Your task to perform on an android device: toggle wifi Image 0: 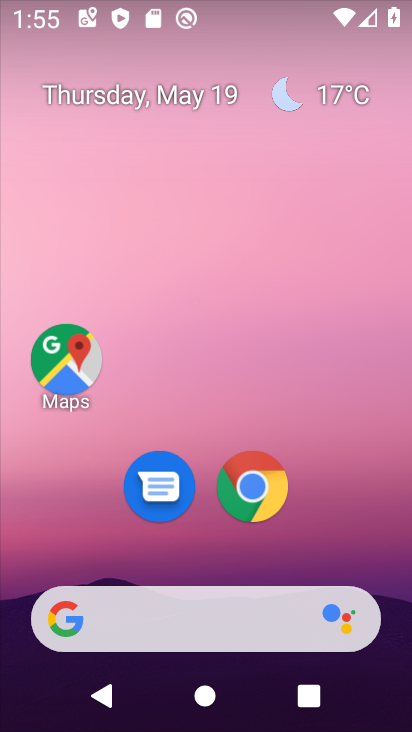
Step 0: drag from (327, 525) to (199, 10)
Your task to perform on an android device: toggle wifi Image 1: 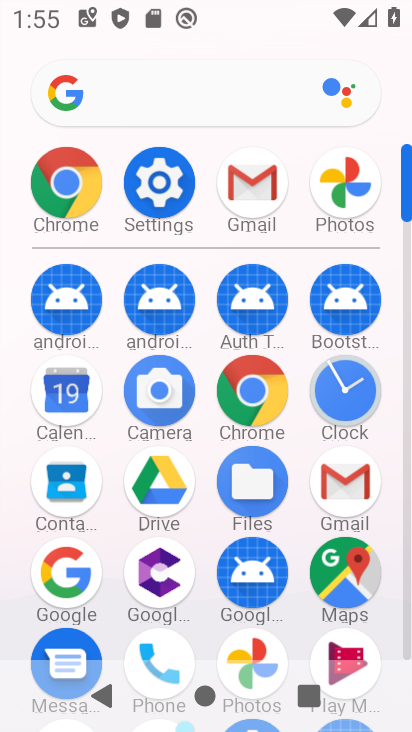
Step 1: click (175, 193)
Your task to perform on an android device: toggle wifi Image 2: 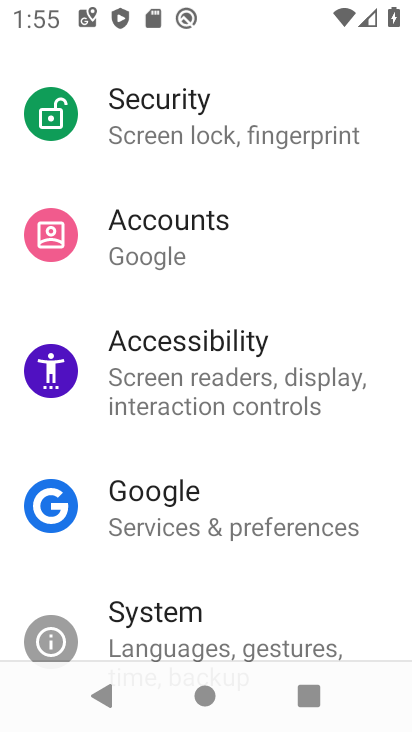
Step 2: drag from (285, 194) to (216, 573)
Your task to perform on an android device: toggle wifi Image 3: 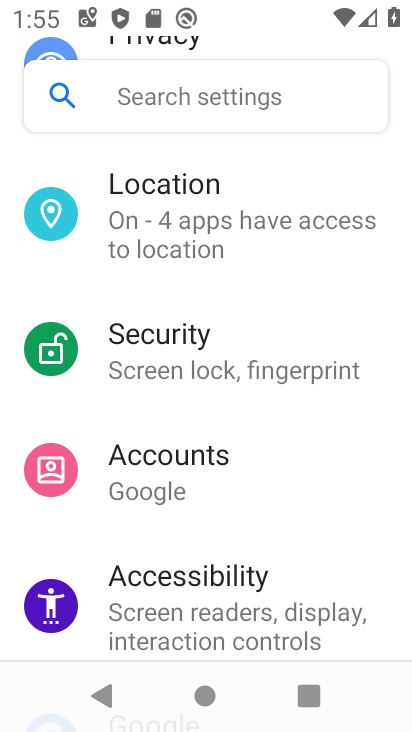
Step 3: drag from (251, 180) to (178, 566)
Your task to perform on an android device: toggle wifi Image 4: 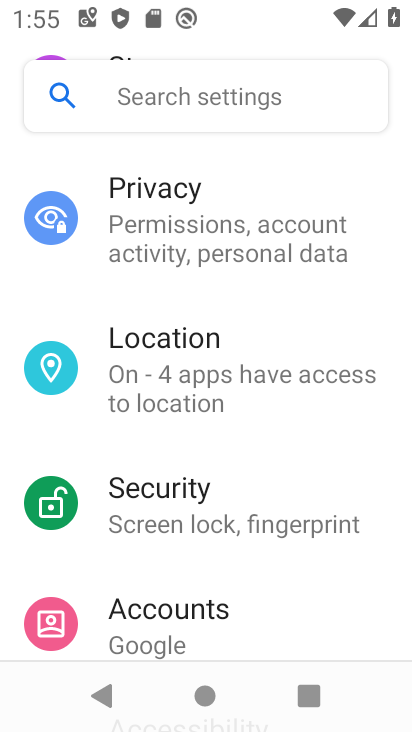
Step 4: drag from (225, 247) to (217, 567)
Your task to perform on an android device: toggle wifi Image 5: 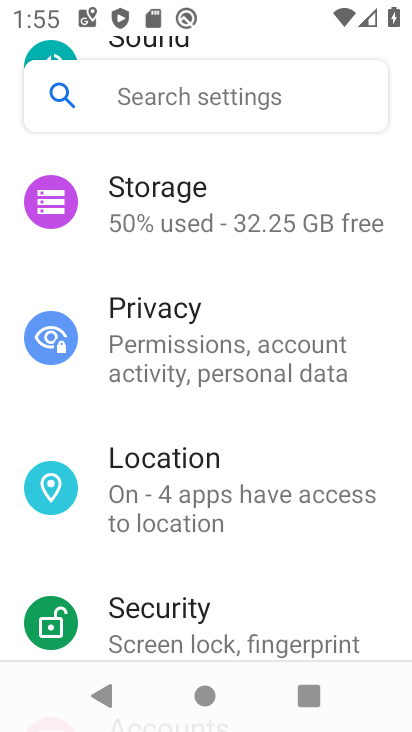
Step 5: drag from (238, 216) to (201, 575)
Your task to perform on an android device: toggle wifi Image 6: 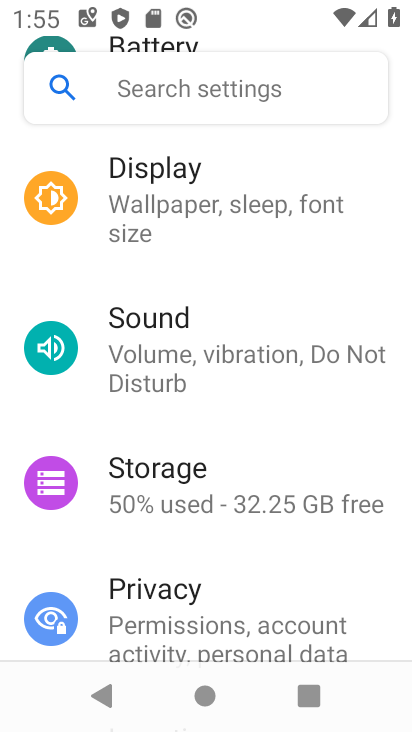
Step 6: drag from (235, 257) to (210, 632)
Your task to perform on an android device: toggle wifi Image 7: 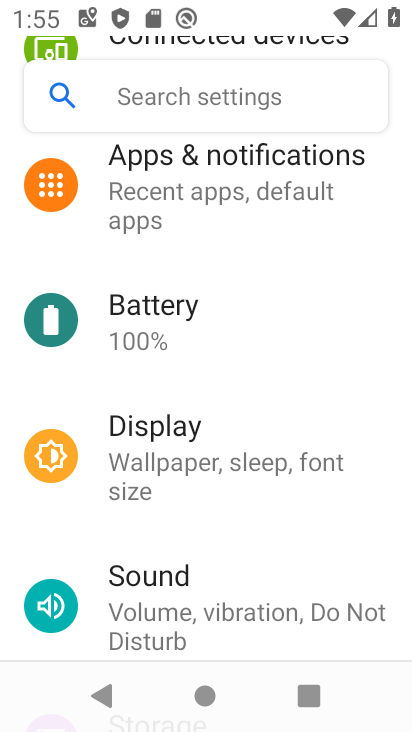
Step 7: drag from (254, 246) to (212, 662)
Your task to perform on an android device: toggle wifi Image 8: 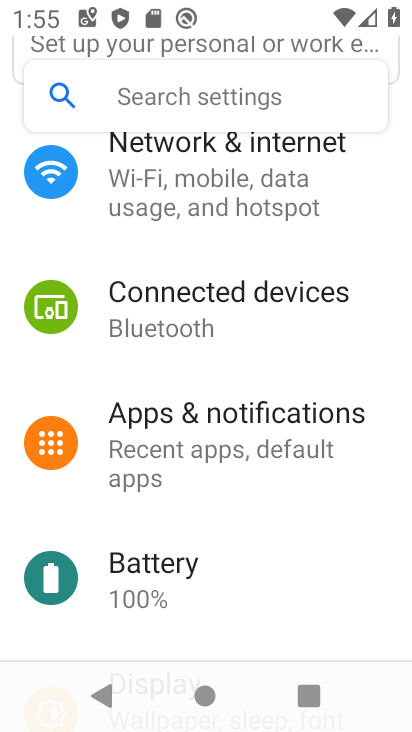
Step 8: click (248, 198)
Your task to perform on an android device: toggle wifi Image 9: 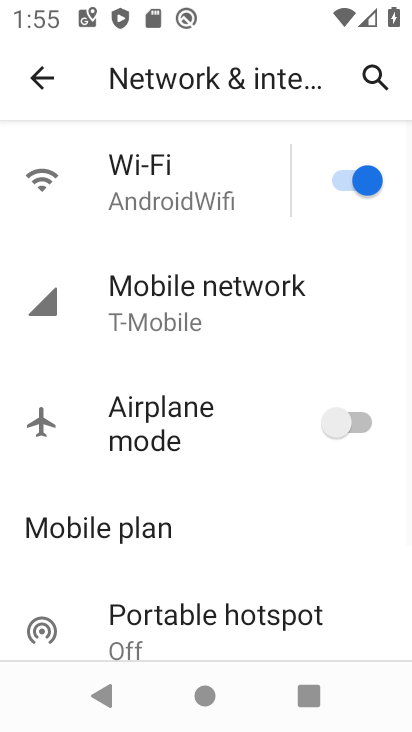
Step 9: click (346, 174)
Your task to perform on an android device: toggle wifi Image 10: 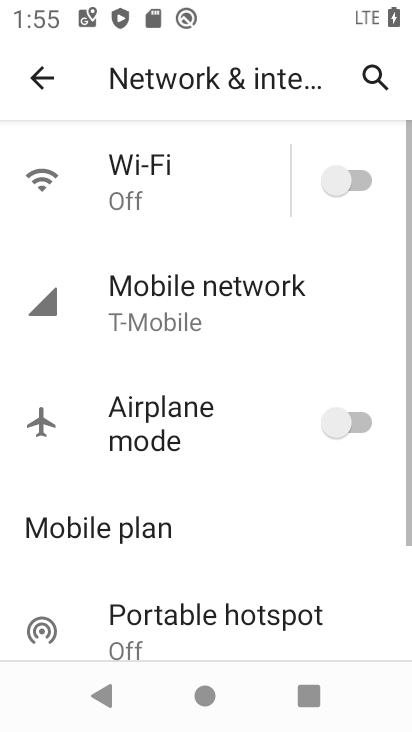
Step 10: task complete